Your task to perform on an android device: find which apps use the phone's location Image 0: 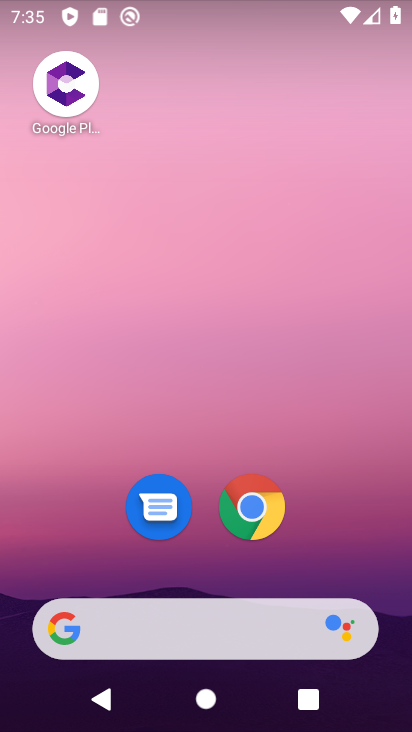
Step 0: drag from (225, 568) to (384, 86)
Your task to perform on an android device: find which apps use the phone's location Image 1: 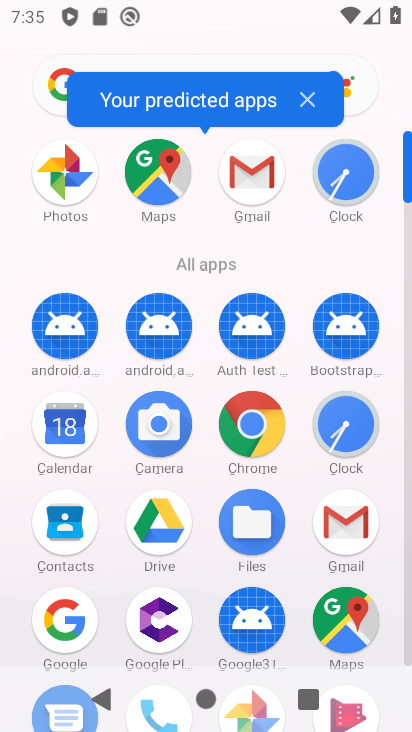
Step 1: drag from (224, 435) to (234, 149)
Your task to perform on an android device: find which apps use the phone's location Image 2: 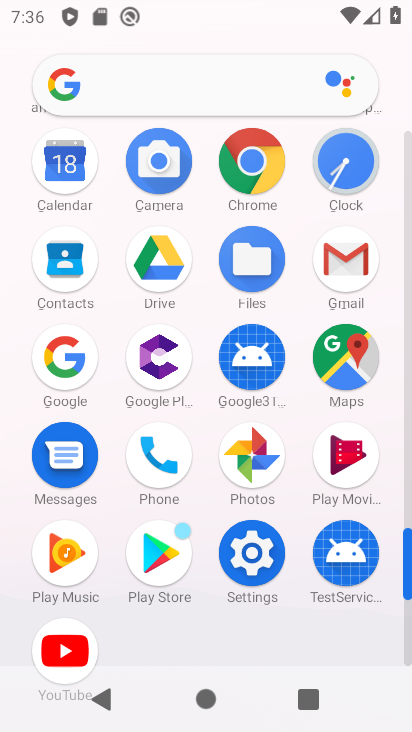
Step 2: click (249, 554)
Your task to perform on an android device: find which apps use the phone's location Image 3: 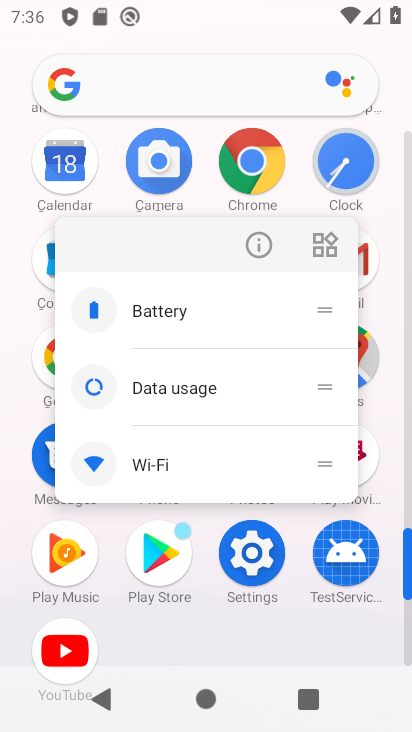
Step 3: click (248, 558)
Your task to perform on an android device: find which apps use the phone's location Image 4: 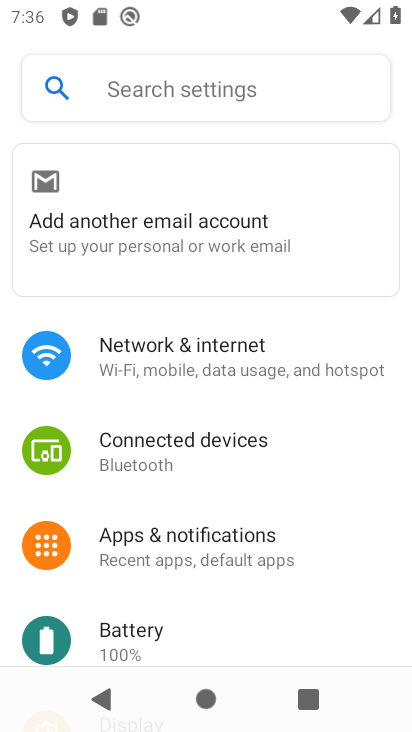
Step 4: drag from (287, 638) to (336, 295)
Your task to perform on an android device: find which apps use the phone's location Image 5: 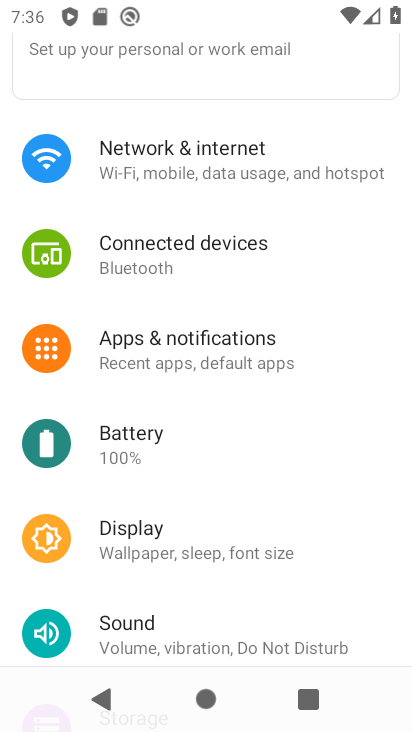
Step 5: drag from (242, 616) to (280, 210)
Your task to perform on an android device: find which apps use the phone's location Image 6: 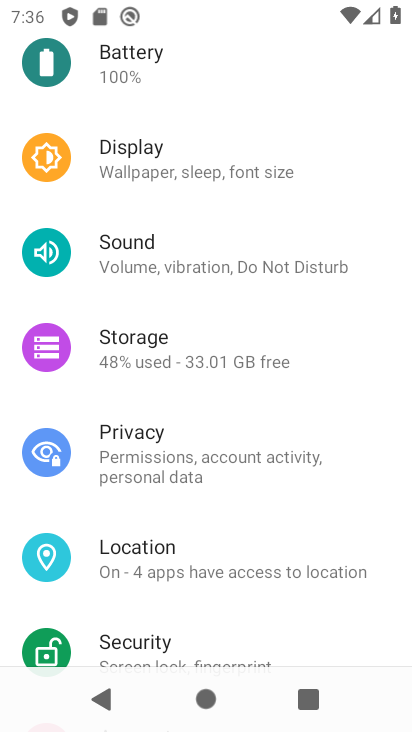
Step 6: click (131, 556)
Your task to perform on an android device: find which apps use the phone's location Image 7: 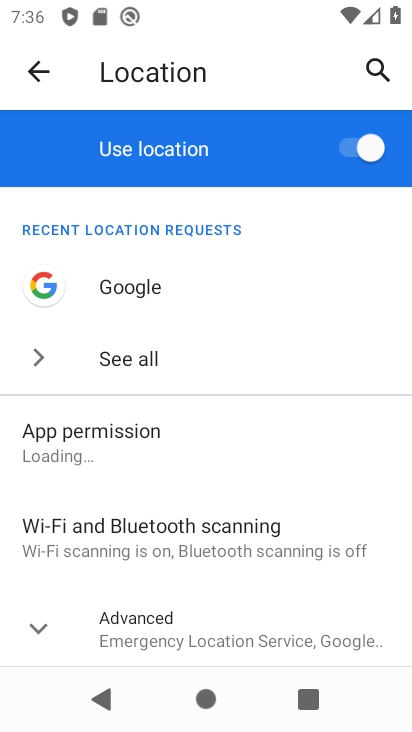
Step 7: click (90, 440)
Your task to perform on an android device: find which apps use the phone's location Image 8: 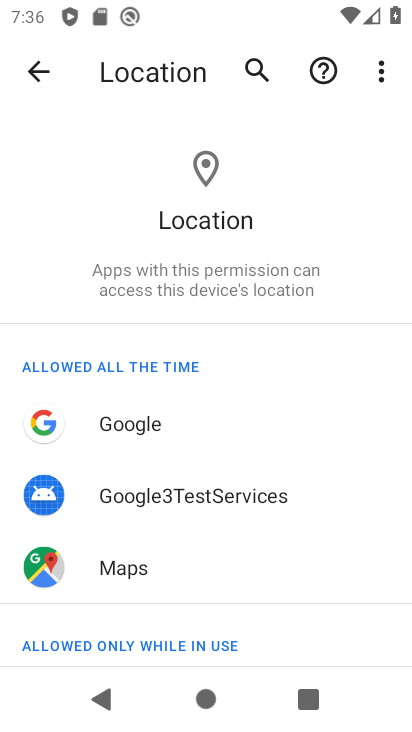
Step 8: drag from (214, 553) to (253, 289)
Your task to perform on an android device: find which apps use the phone's location Image 9: 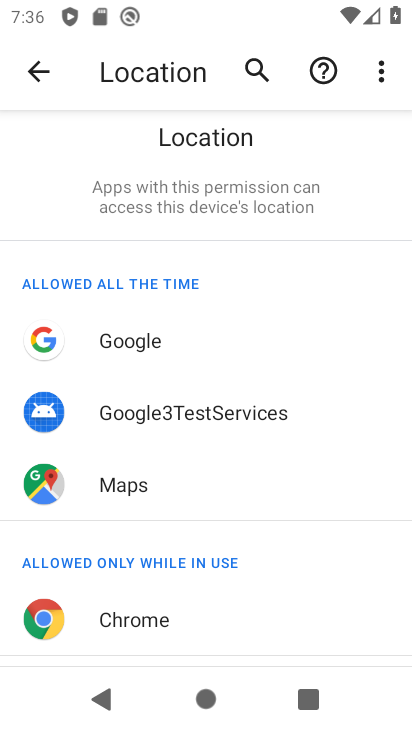
Step 9: click (287, 314)
Your task to perform on an android device: find which apps use the phone's location Image 10: 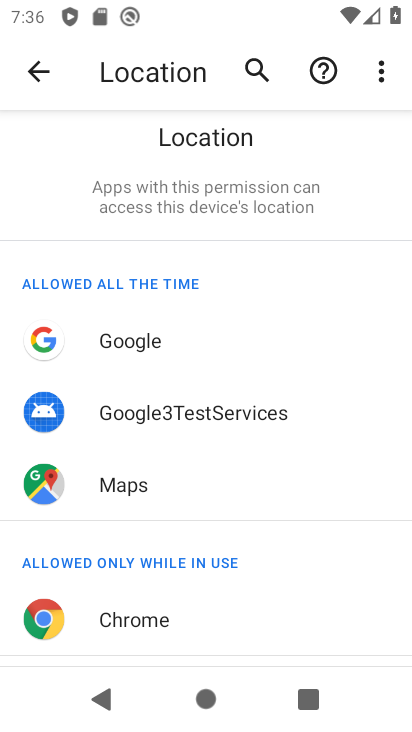
Step 10: task complete